Your task to perform on an android device: turn pop-ups on in chrome Image 0: 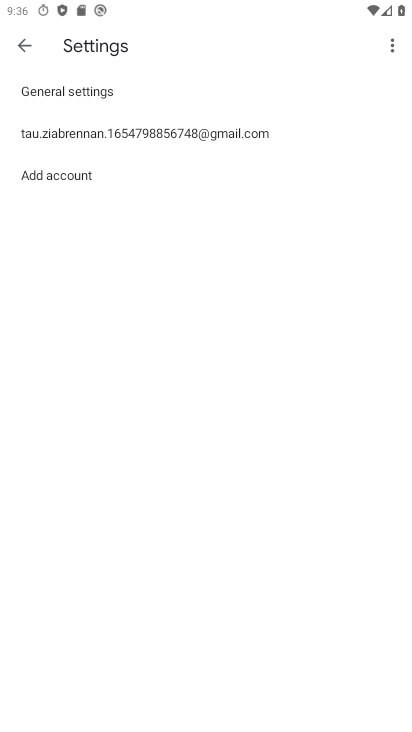
Step 0: press home button
Your task to perform on an android device: turn pop-ups on in chrome Image 1: 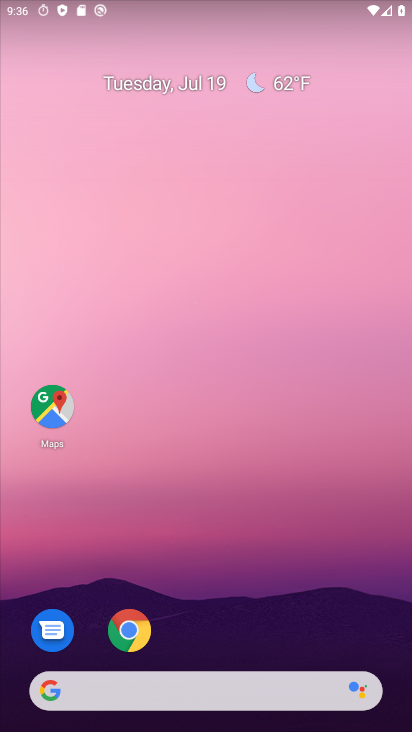
Step 1: click (130, 631)
Your task to perform on an android device: turn pop-ups on in chrome Image 2: 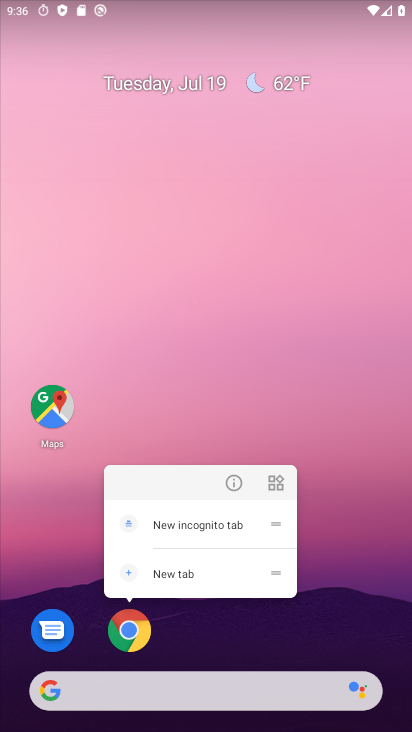
Step 2: click (130, 631)
Your task to perform on an android device: turn pop-ups on in chrome Image 3: 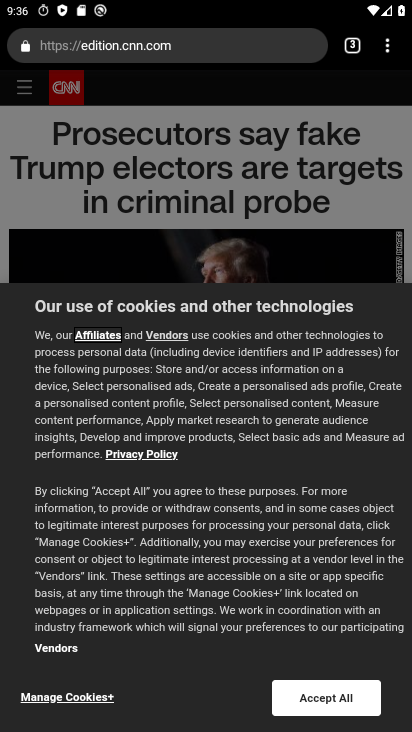
Step 3: click (389, 45)
Your task to perform on an android device: turn pop-ups on in chrome Image 4: 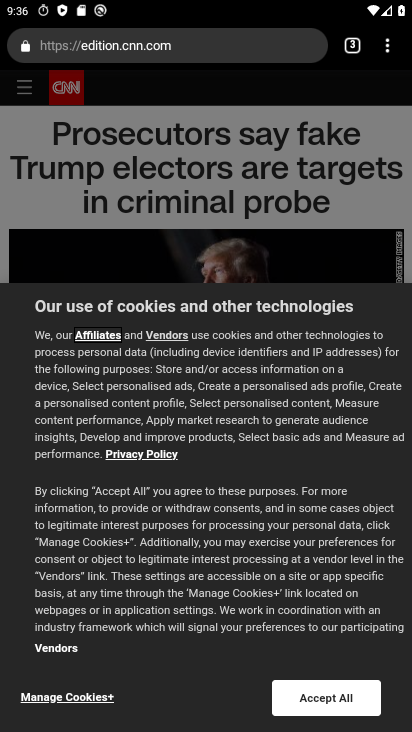
Step 4: click (383, 44)
Your task to perform on an android device: turn pop-ups on in chrome Image 5: 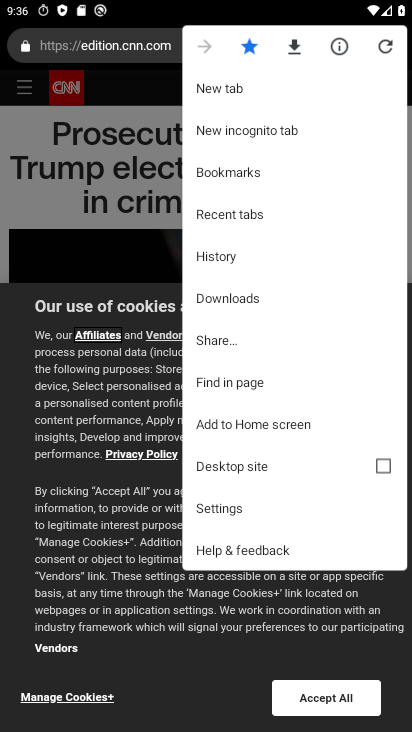
Step 5: click (212, 501)
Your task to perform on an android device: turn pop-ups on in chrome Image 6: 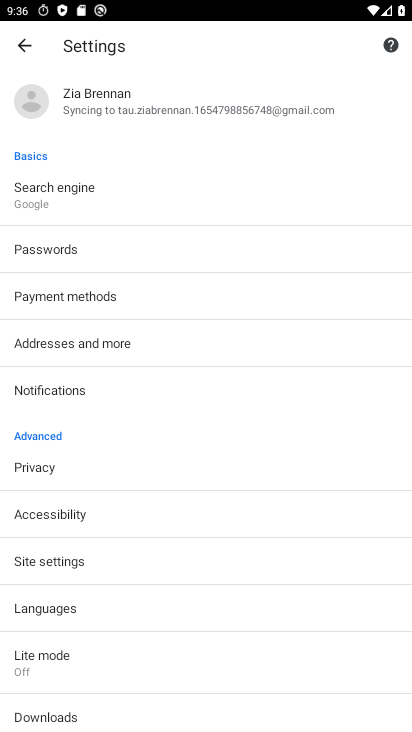
Step 6: click (48, 559)
Your task to perform on an android device: turn pop-ups on in chrome Image 7: 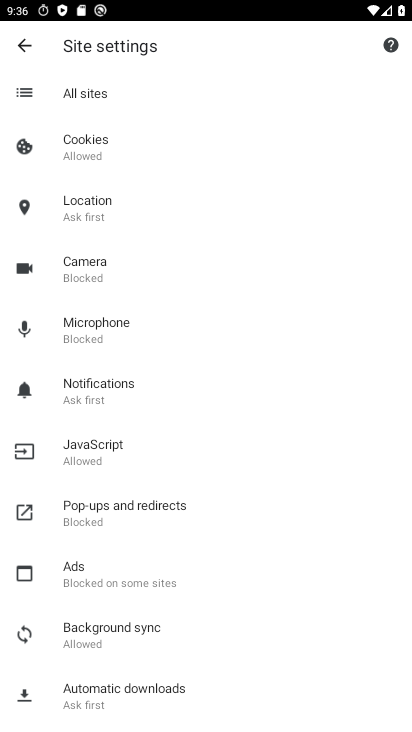
Step 7: click (129, 504)
Your task to perform on an android device: turn pop-ups on in chrome Image 8: 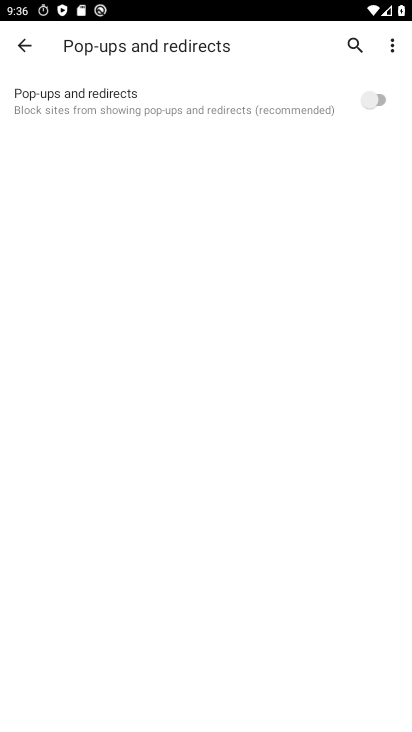
Step 8: click (362, 98)
Your task to perform on an android device: turn pop-ups on in chrome Image 9: 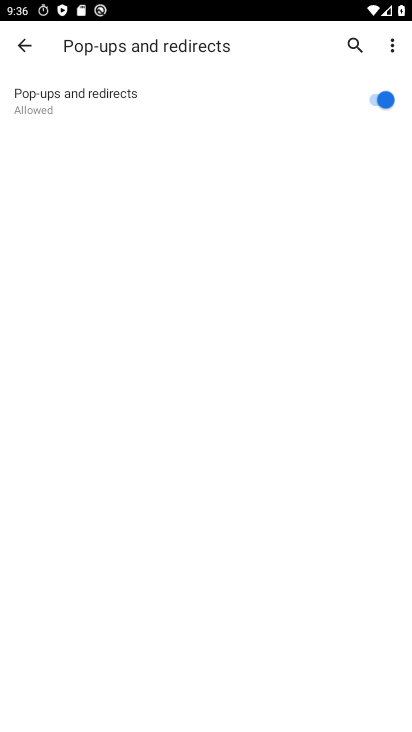
Step 9: task complete